Your task to perform on an android device: Open battery settings Image 0: 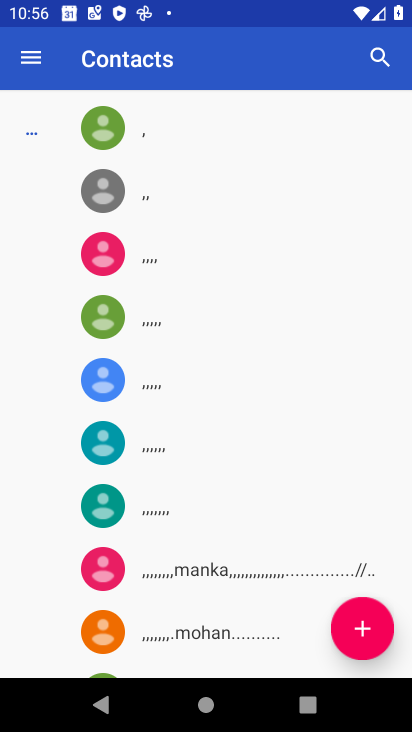
Step 0: press home button
Your task to perform on an android device: Open battery settings Image 1: 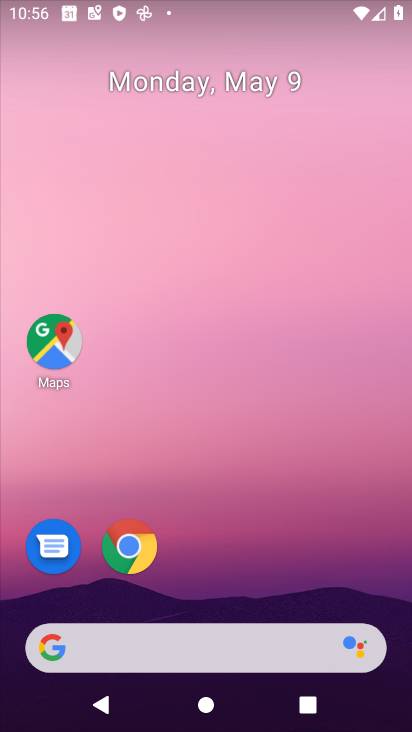
Step 1: drag from (255, 656) to (206, 1)
Your task to perform on an android device: Open battery settings Image 2: 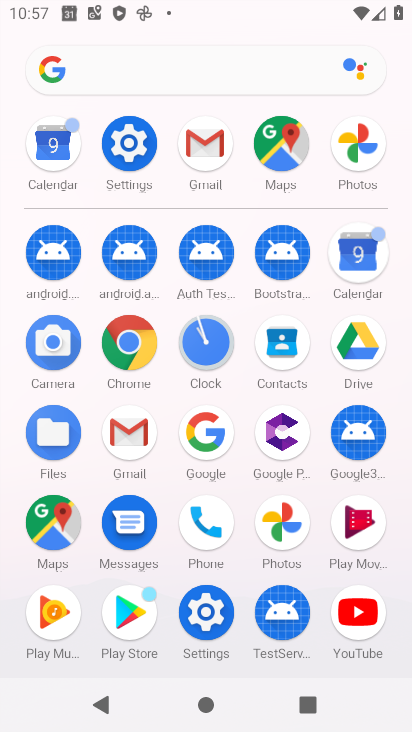
Step 2: click (123, 156)
Your task to perform on an android device: Open battery settings Image 3: 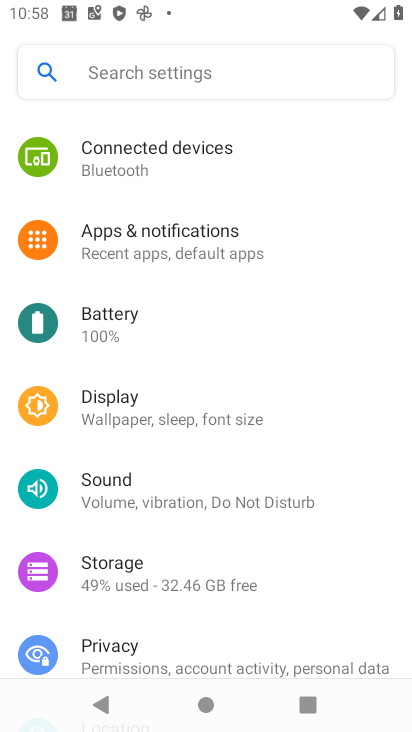
Step 3: click (138, 328)
Your task to perform on an android device: Open battery settings Image 4: 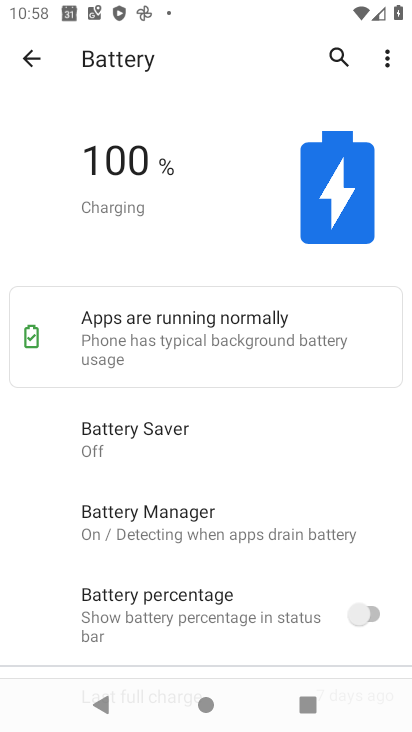
Step 4: task complete